Your task to perform on an android device: Open the calendar and show me this week's events? Image 0: 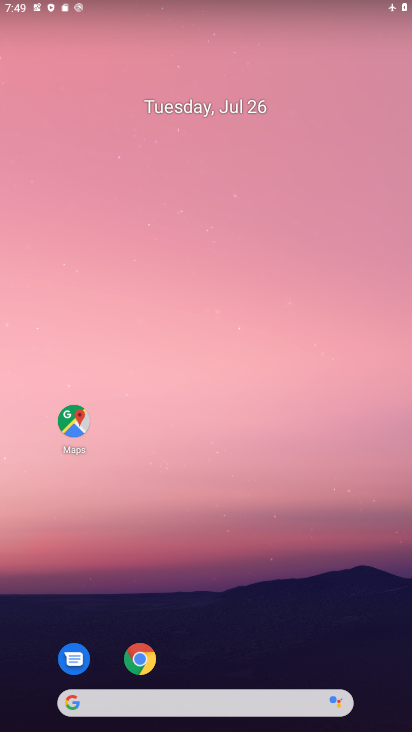
Step 0: drag from (232, 659) to (203, 65)
Your task to perform on an android device: Open the calendar and show me this week's events? Image 1: 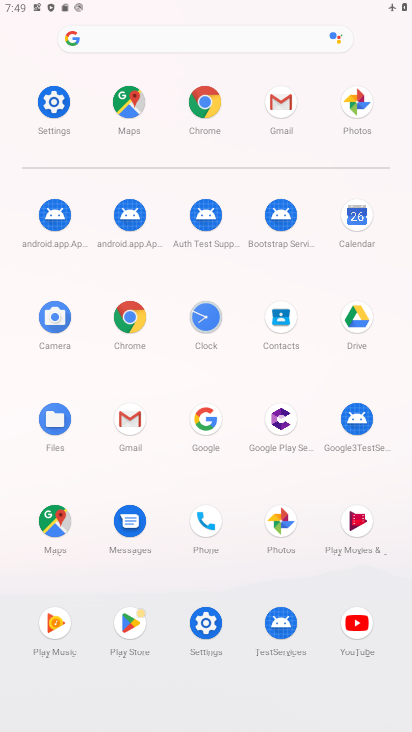
Step 1: click (363, 231)
Your task to perform on an android device: Open the calendar and show me this week's events? Image 2: 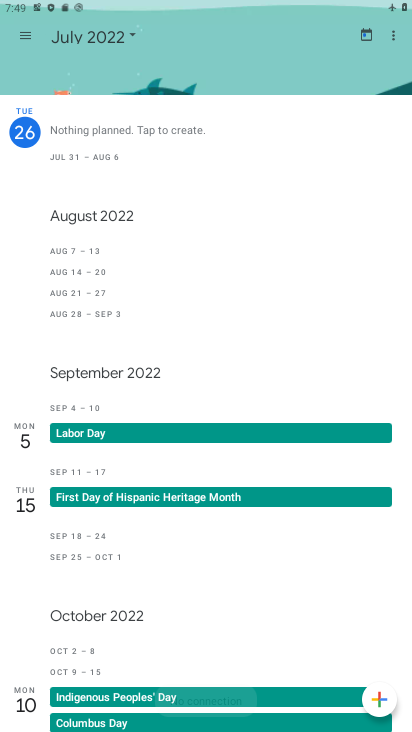
Step 2: click (18, 36)
Your task to perform on an android device: Open the calendar and show me this week's events? Image 3: 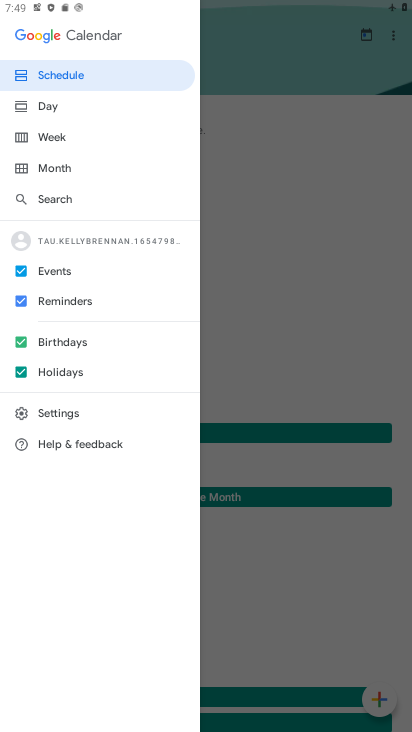
Step 3: click (42, 130)
Your task to perform on an android device: Open the calendar and show me this week's events? Image 4: 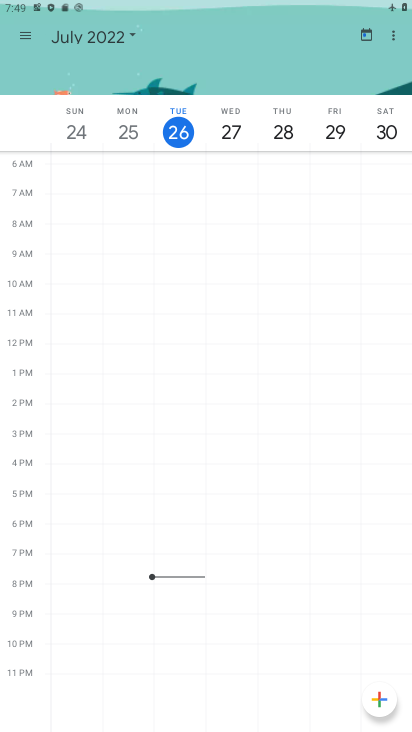
Step 4: task complete